Your task to perform on an android device: Open maps Image 0: 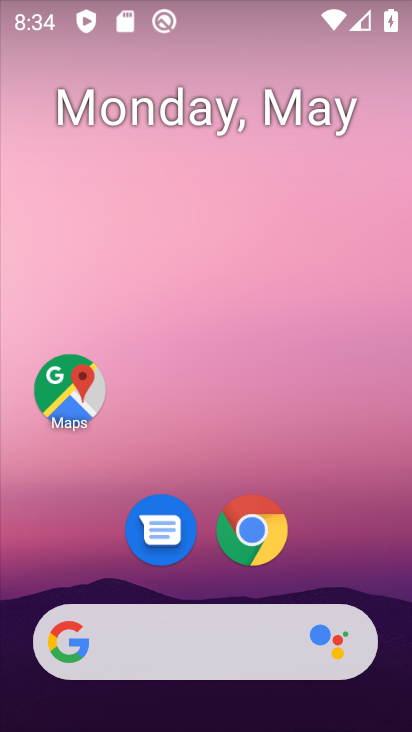
Step 0: click (127, 374)
Your task to perform on an android device: Open maps Image 1: 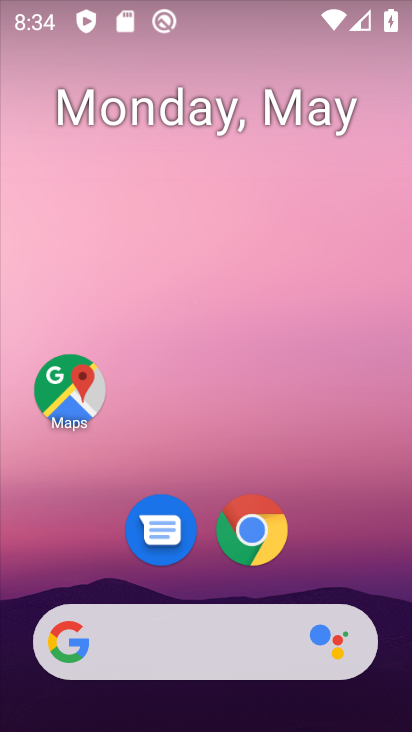
Step 1: click (49, 403)
Your task to perform on an android device: Open maps Image 2: 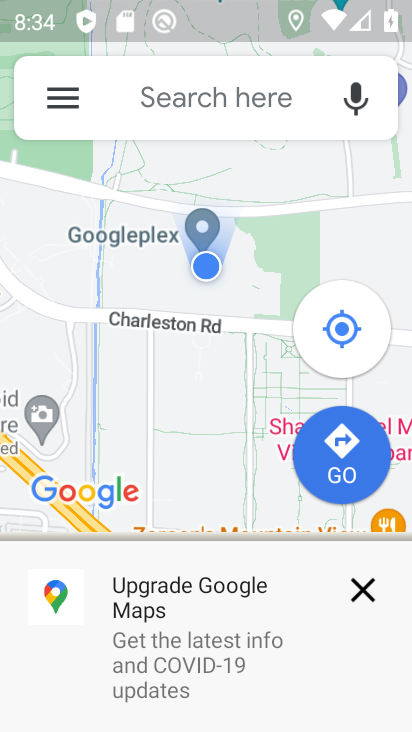
Step 2: task complete